Your task to perform on an android device: What's the weather going to be tomorrow? Image 0: 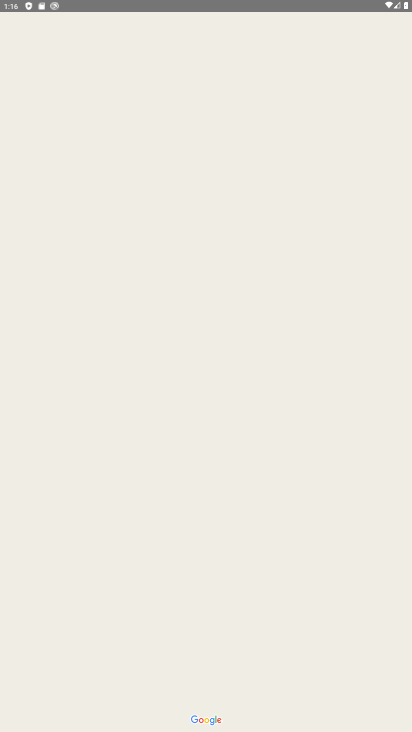
Step 0: click (350, 140)
Your task to perform on an android device: What's the weather going to be tomorrow? Image 1: 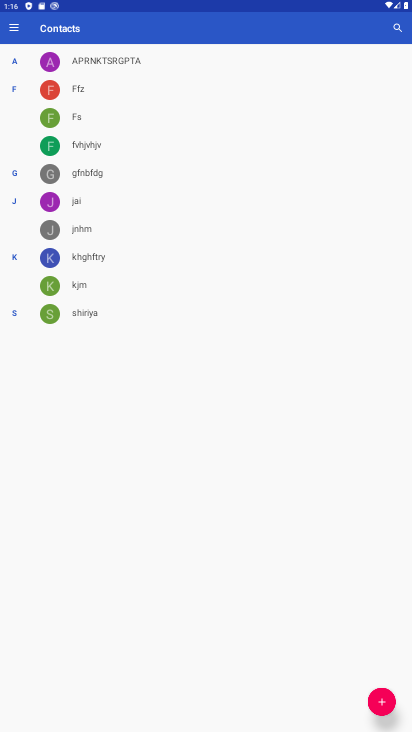
Step 1: drag from (290, 589) to (251, 226)
Your task to perform on an android device: What's the weather going to be tomorrow? Image 2: 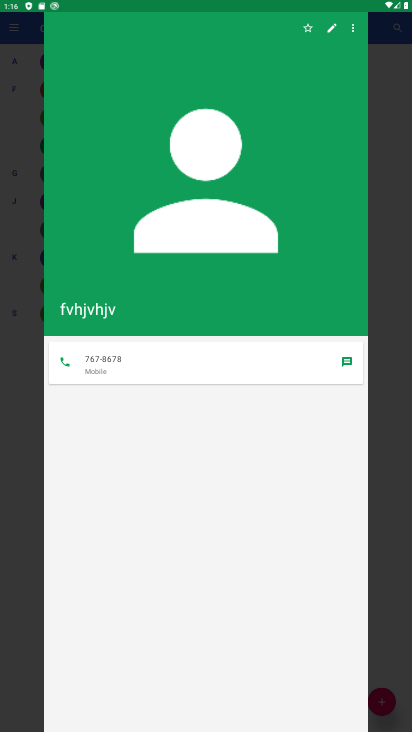
Step 2: press home button
Your task to perform on an android device: What's the weather going to be tomorrow? Image 3: 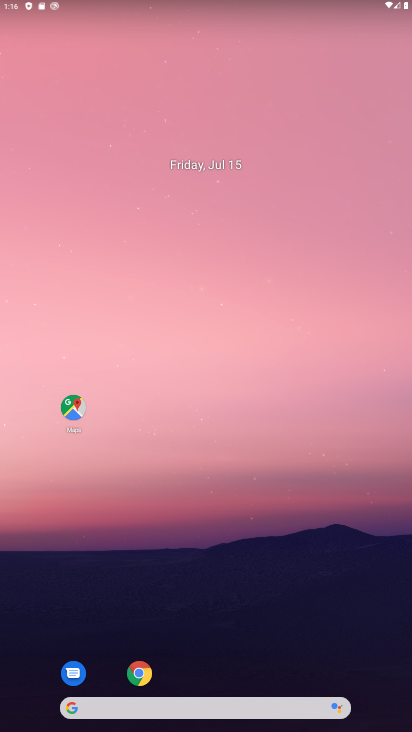
Step 3: drag from (279, 644) to (347, 56)
Your task to perform on an android device: What's the weather going to be tomorrow? Image 4: 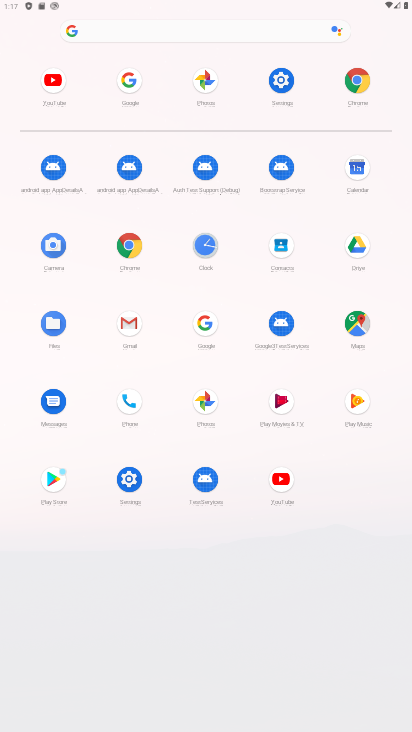
Step 4: click (189, 321)
Your task to perform on an android device: What's the weather going to be tomorrow? Image 5: 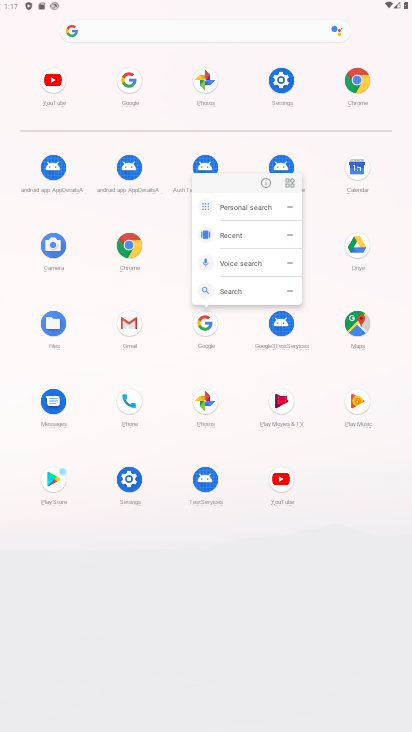
Step 5: click (172, 335)
Your task to perform on an android device: What's the weather going to be tomorrow? Image 6: 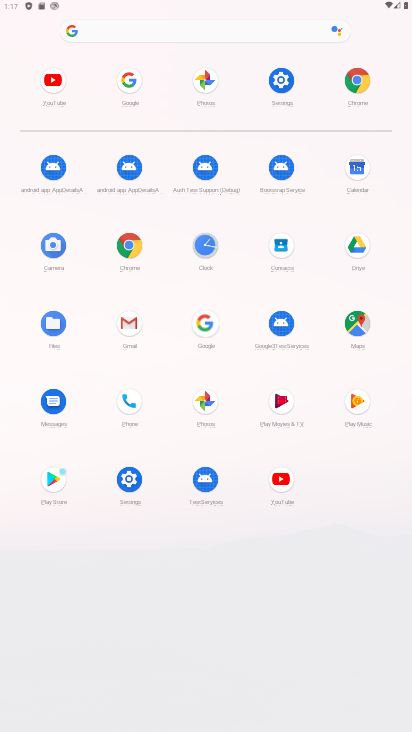
Step 6: click (221, 336)
Your task to perform on an android device: What's the weather going to be tomorrow? Image 7: 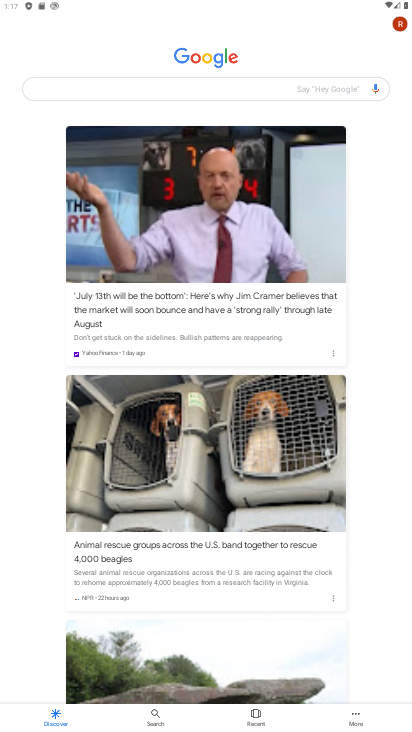
Step 7: click (311, 26)
Your task to perform on an android device: What's the weather going to be tomorrow? Image 8: 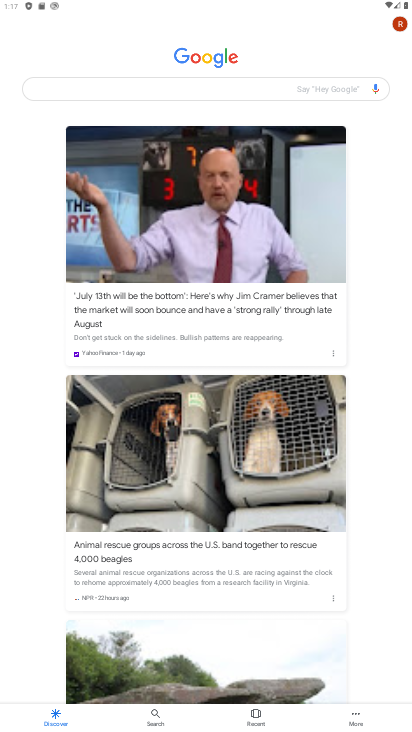
Step 8: click (311, 90)
Your task to perform on an android device: What's the weather going to be tomorrow? Image 9: 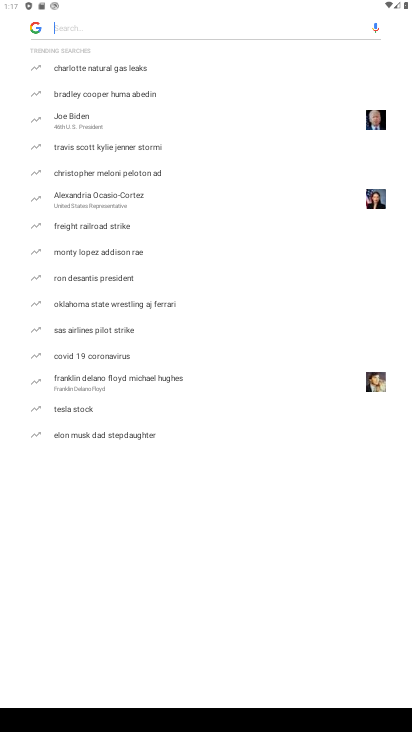
Step 9: type "weather"
Your task to perform on an android device: What's the weather going to be tomorrow? Image 10: 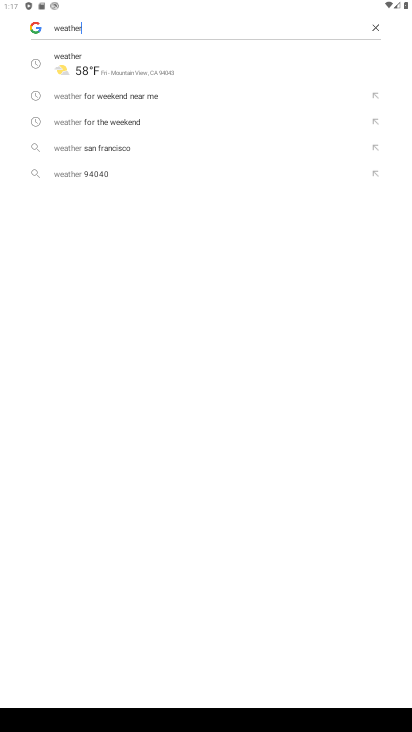
Step 10: click (107, 66)
Your task to perform on an android device: What's the weather going to be tomorrow? Image 11: 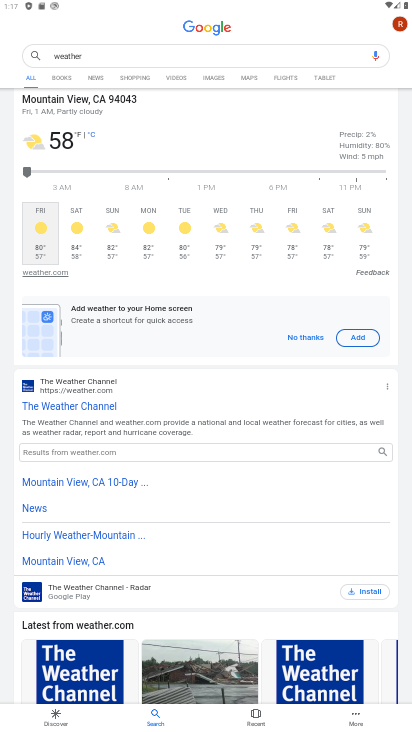
Step 11: task complete